Your task to perform on an android device: choose inbox layout in the gmail app Image 0: 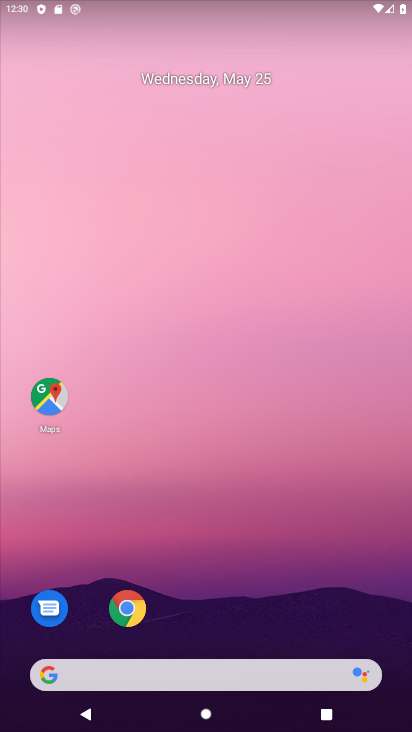
Step 0: drag from (258, 709) to (258, 152)
Your task to perform on an android device: choose inbox layout in the gmail app Image 1: 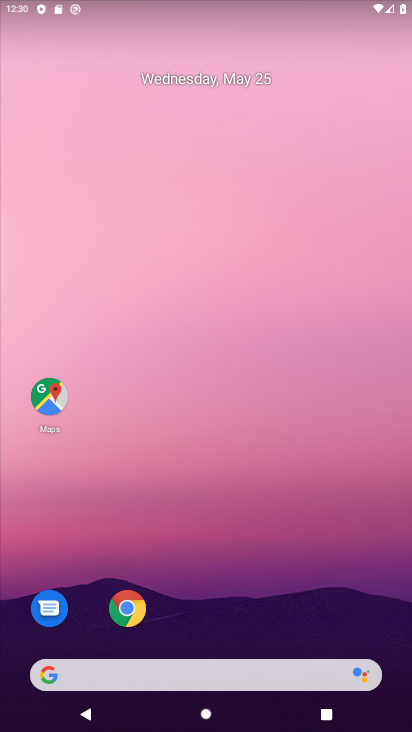
Step 1: drag from (276, 715) to (340, 0)
Your task to perform on an android device: choose inbox layout in the gmail app Image 2: 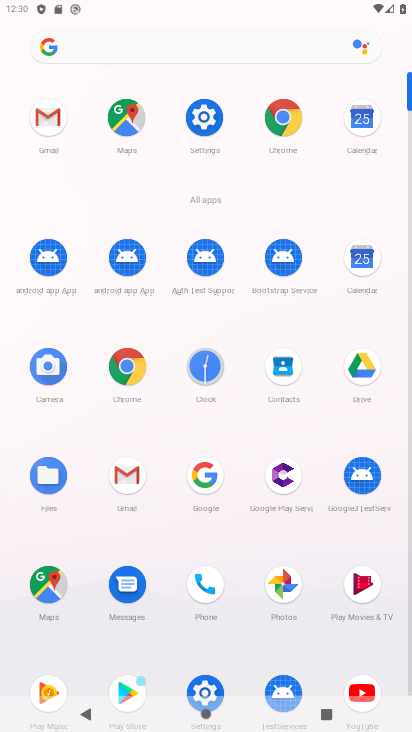
Step 2: click (132, 487)
Your task to perform on an android device: choose inbox layout in the gmail app Image 3: 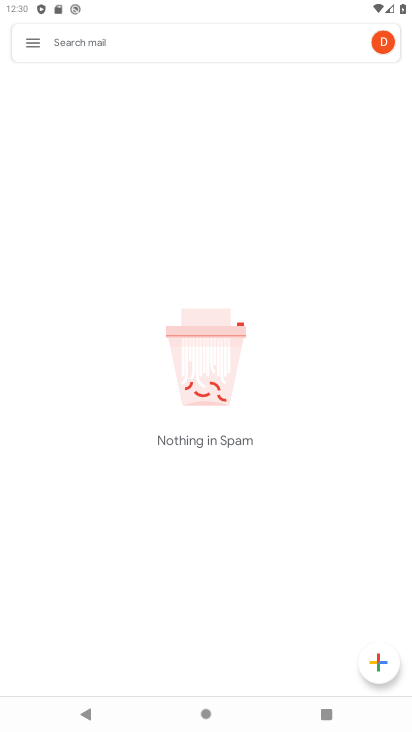
Step 3: click (37, 45)
Your task to perform on an android device: choose inbox layout in the gmail app Image 4: 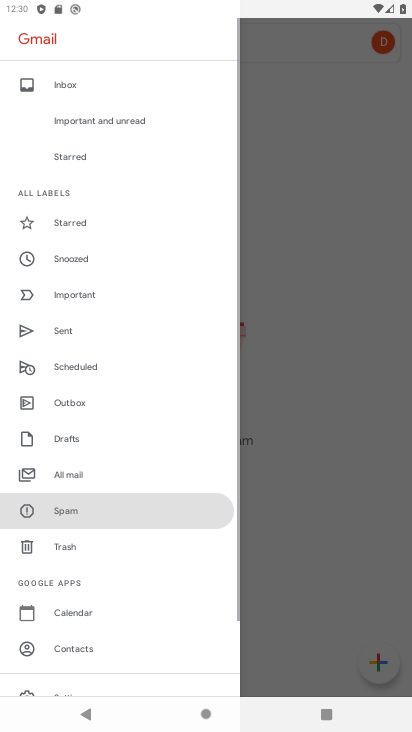
Step 4: drag from (114, 666) to (153, 118)
Your task to perform on an android device: choose inbox layout in the gmail app Image 5: 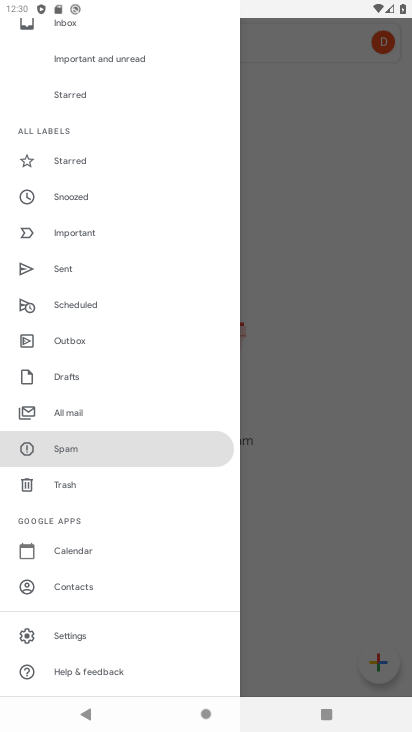
Step 5: click (77, 634)
Your task to perform on an android device: choose inbox layout in the gmail app Image 6: 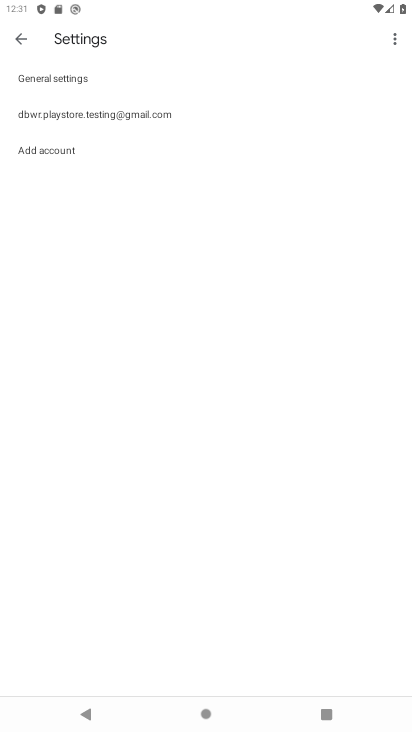
Step 6: click (69, 113)
Your task to perform on an android device: choose inbox layout in the gmail app Image 7: 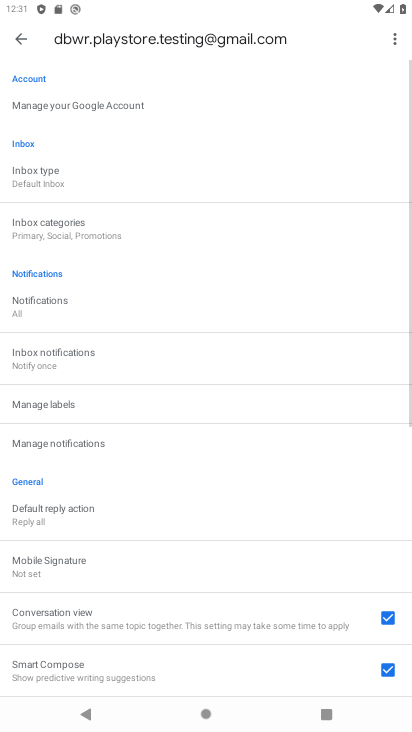
Step 7: click (48, 177)
Your task to perform on an android device: choose inbox layout in the gmail app Image 8: 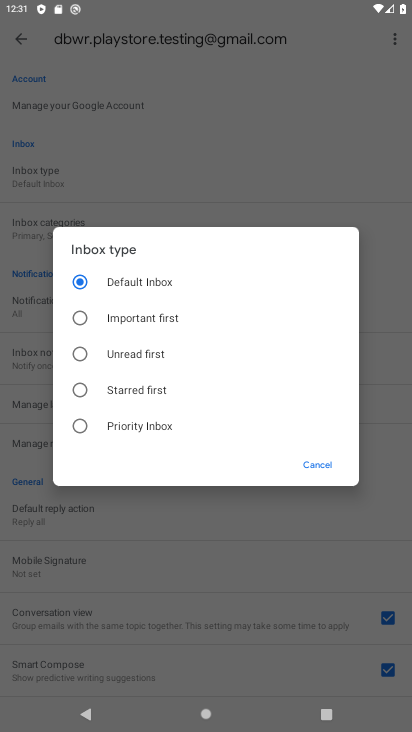
Step 8: click (157, 386)
Your task to perform on an android device: choose inbox layout in the gmail app Image 9: 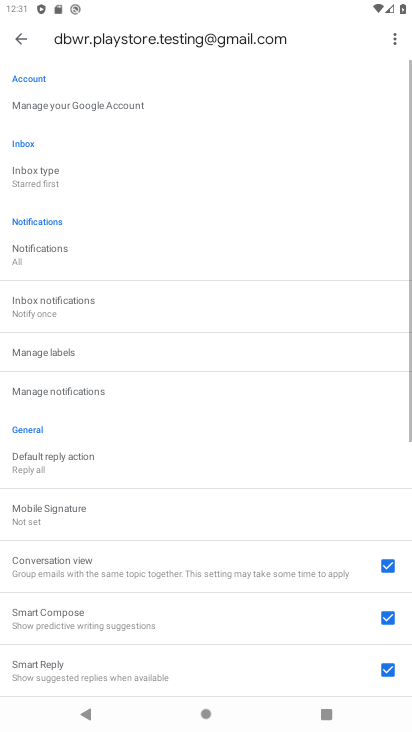
Step 9: task complete